Your task to perform on an android device: What's on my calendar today? Image 0: 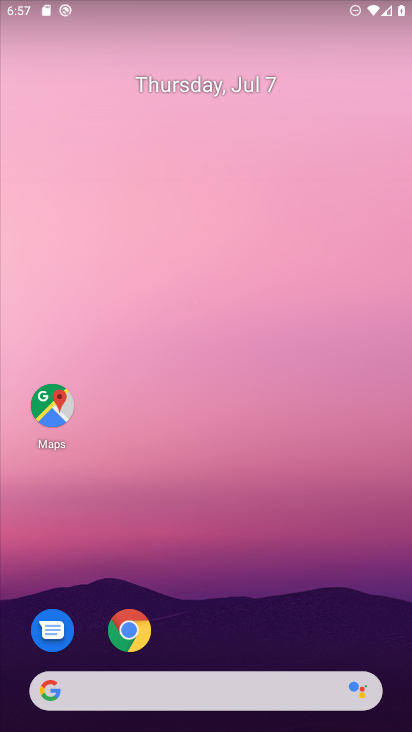
Step 0: drag from (197, 570) to (155, 143)
Your task to perform on an android device: What's on my calendar today? Image 1: 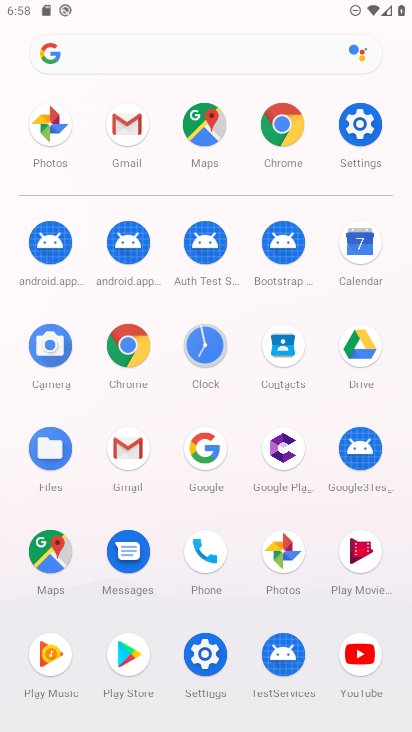
Step 1: click (357, 238)
Your task to perform on an android device: What's on my calendar today? Image 2: 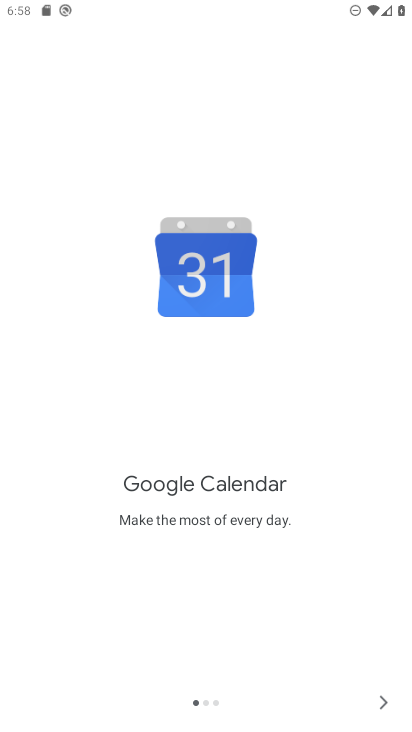
Step 2: click (383, 701)
Your task to perform on an android device: What's on my calendar today? Image 3: 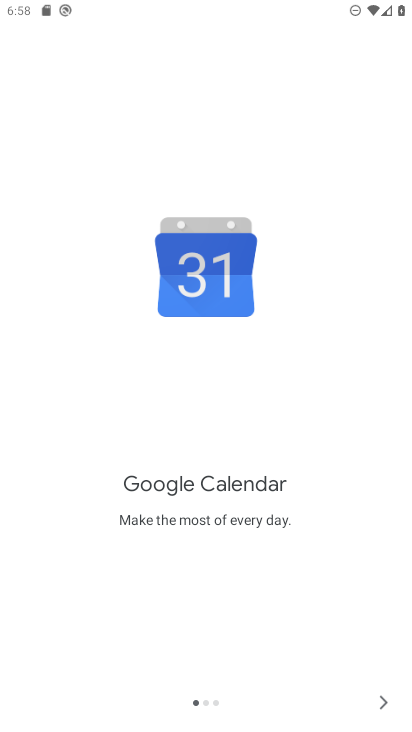
Step 3: click (383, 701)
Your task to perform on an android device: What's on my calendar today? Image 4: 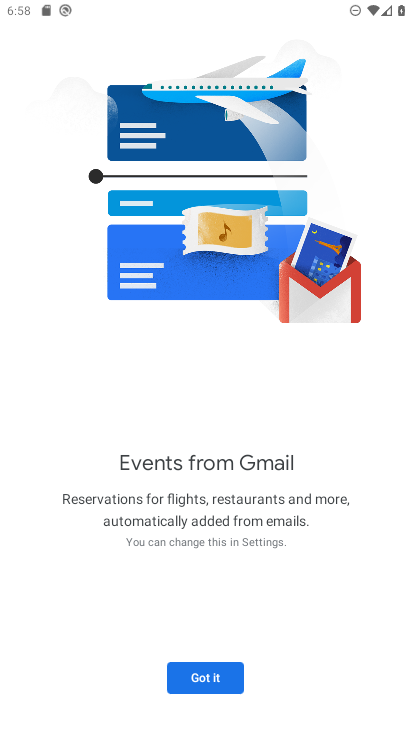
Step 4: click (200, 672)
Your task to perform on an android device: What's on my calendar today? Image 5: 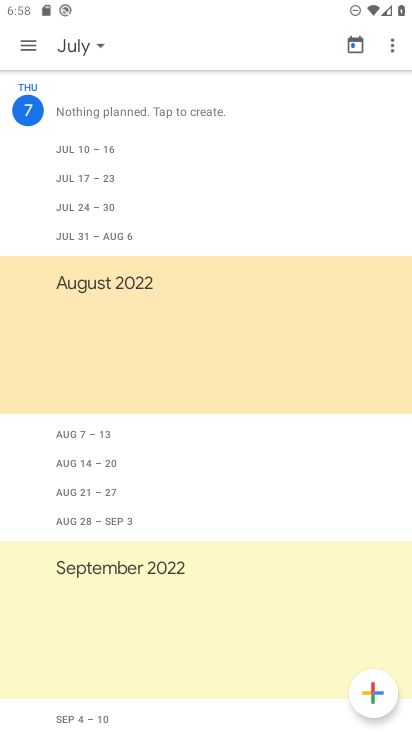
Step 5: click (29, 38)
Your task to perform on an android device: What's on my calendar today? Image 6: 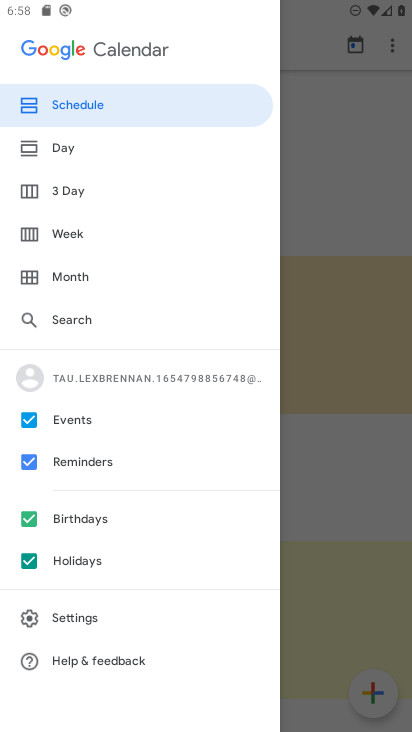
Step 6: click (62, 149)
Your task to perform on an android device: What's on my calendar today? Image 7: 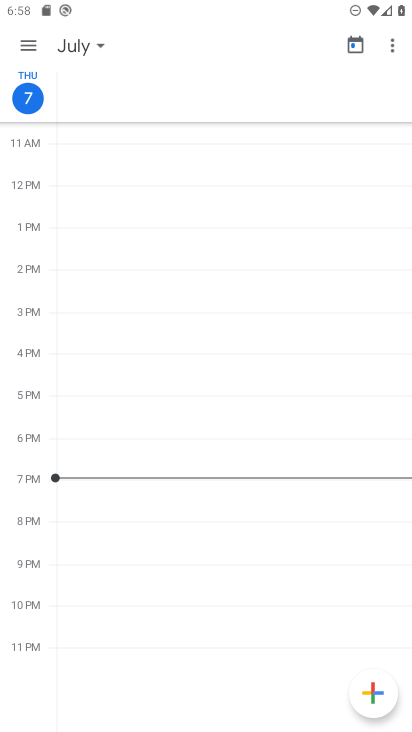
Step 7: task complete